Your task to perform on an android device: Go to Android settings Image 0: 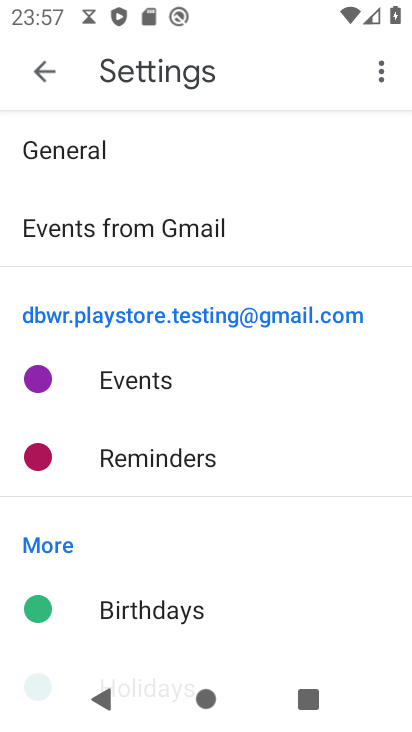
Step 0: press home button
Your task to perform on an android device: Go to Android settings Image 1: 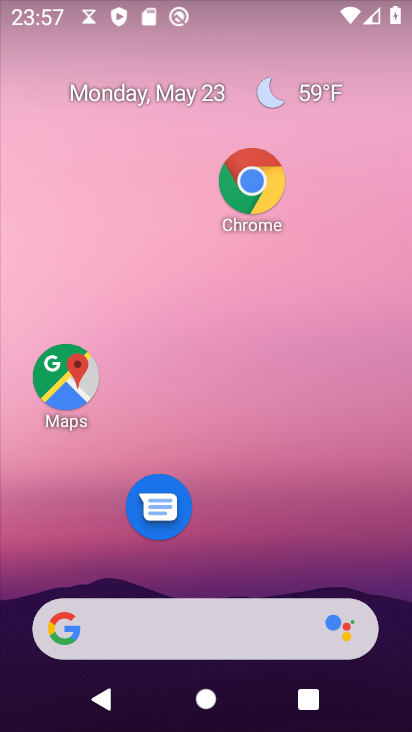
Step 1: drag from (267, 435) to (306, 184)
Your task to perform on an android device: Go to Android settings Image 2: 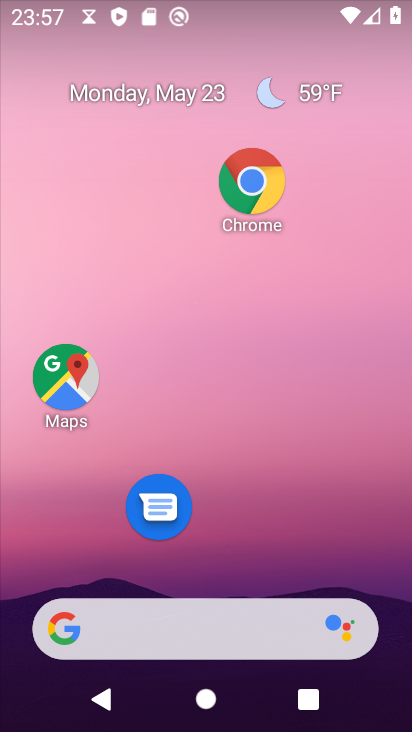
Step 2: drag from (209, 578) to (255, 360)
Your task to perform on an android device: Go to Android settings Image 3: 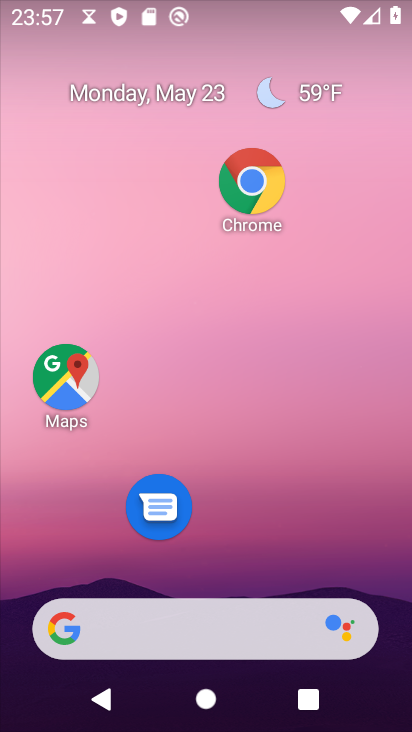
Step 3: drag from (254, 495) to (283, 257)
Your task to perform on an android device: Go to Android settings Image 4: 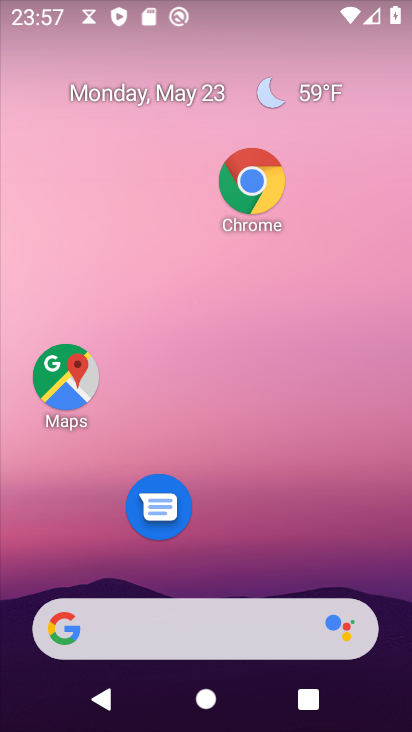
Step 4: drag from (249, 517) to (298, 227)
Your task to perform on an android device: Go to Android settings Image 5: 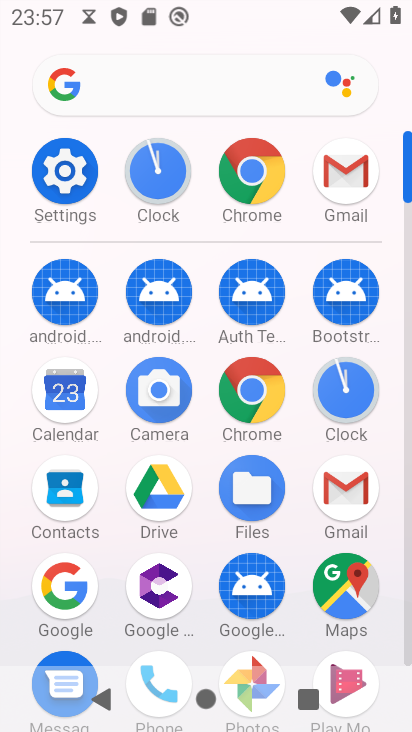
Step 5: click (72, 158)
Your task to perform on an android device: Go to Android settings Image 6: 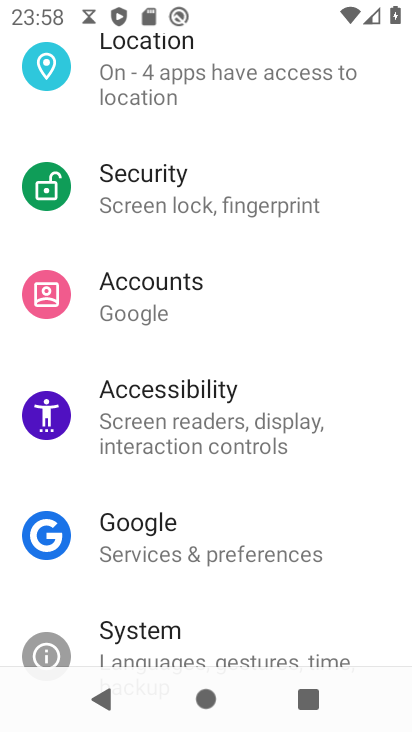
Step 6: task complete